Your task to perform on an android device: add a label to a message in the gmail app Image 0: 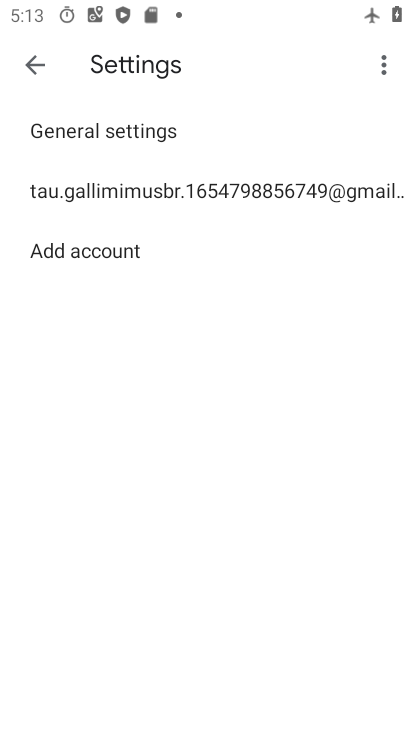
Step 0: click (35, 62)
Your task to perform on an android device: add a label to a message in the gmail app Image 1: 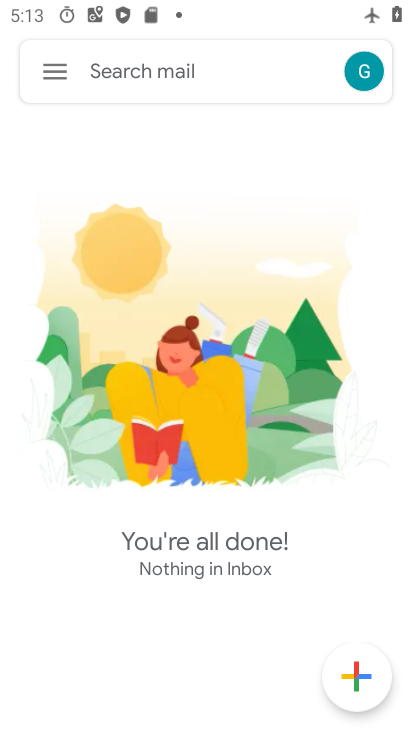
Step 1: click (58, 81)
Your task to perform on an android device: add a label to a message in the gmail app Image 2: 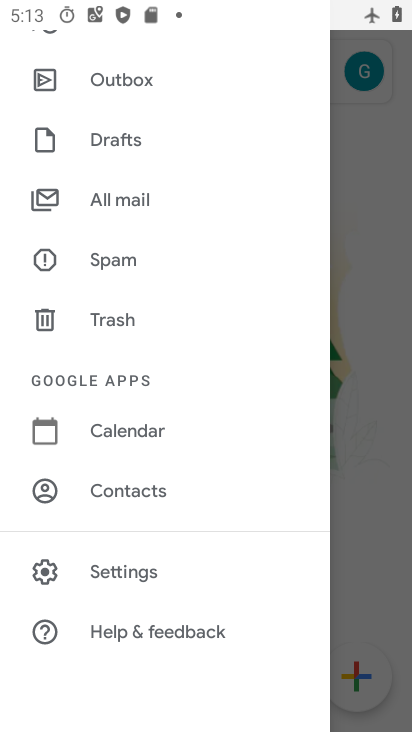
Step 2: click (117, 204)
Your task to perform on an android device: add a label to a message in the gmail app Image 3: 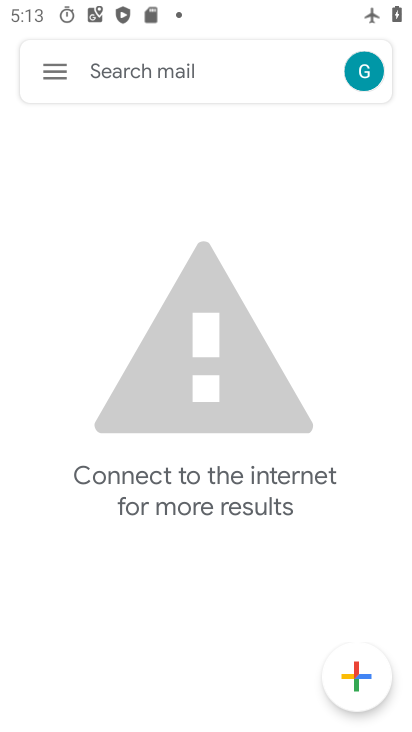
Step 3: task complete